Your task to perform on an android device: Open network settings Image 0: 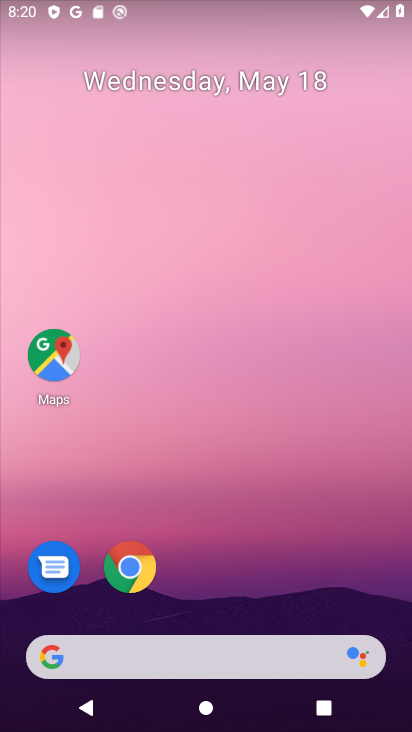
Step 0: drag from (244, 467) to (233, 27)
Your task to perform on an android device: Open network settings Image 1: 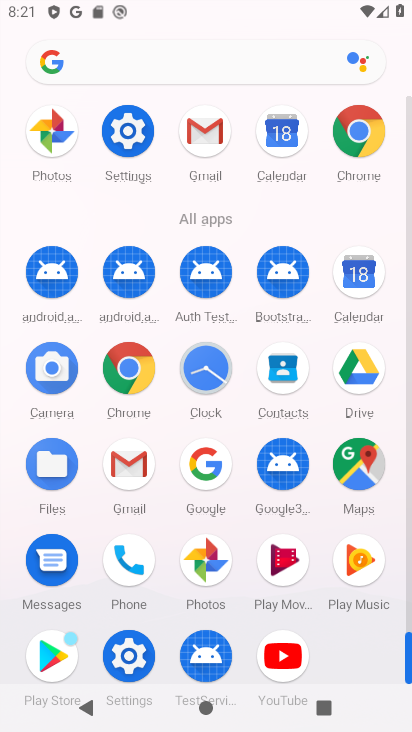
Step 1: drag from (0, 496) to (19, 330)
Your task to perform on an android device: Open network settings Image 2: 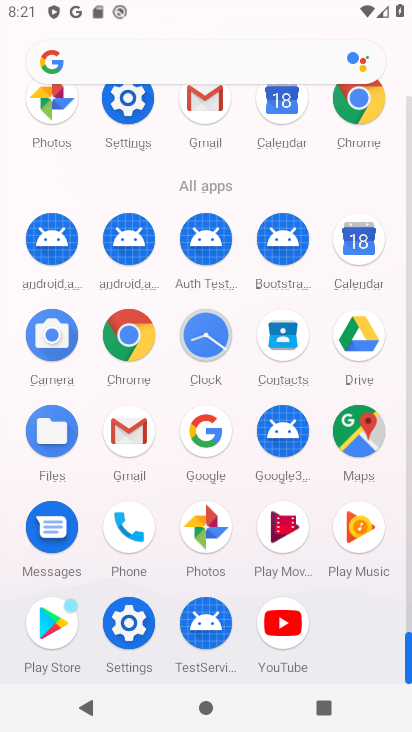
Step 2: click (126, 619)
Your task to perform on an android device: Open network settings Image 3: 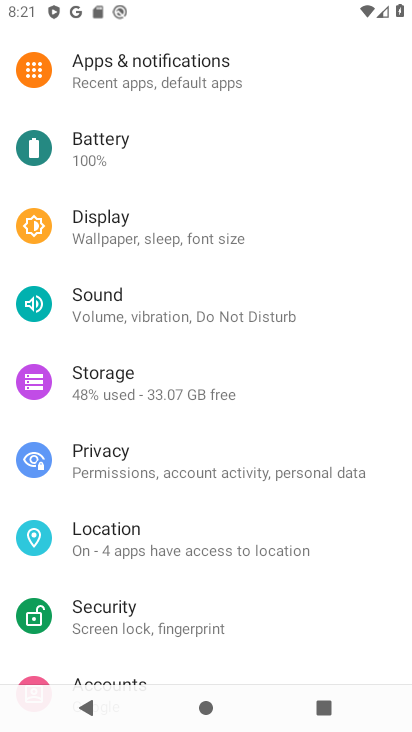
Step 3: drag from (215, 133) to (270, 570)
Your task to perform on an android device: Open network settings Image 4: 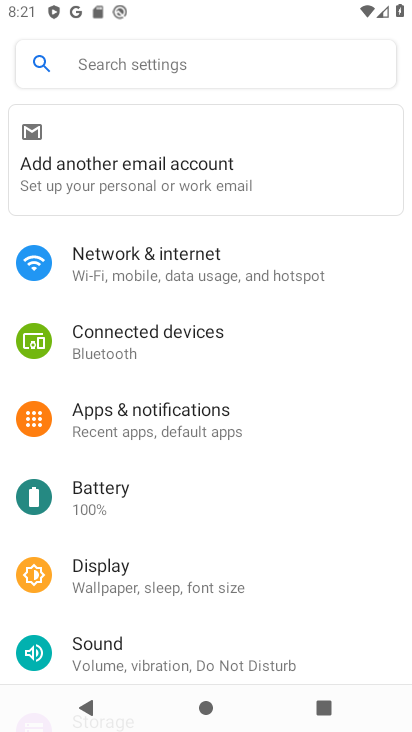
Step 4: click (205, 270)
Your task to perform on an android device: Open network settings Image 5: 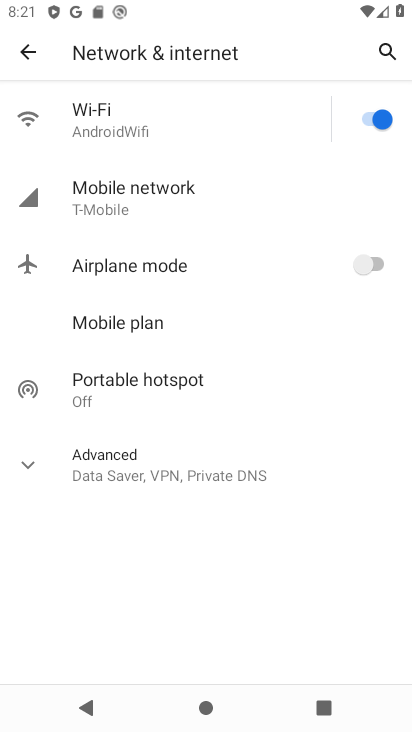
Step 5: click (27, 461)
Your task to perform on an android device: Open network settings Image 6: 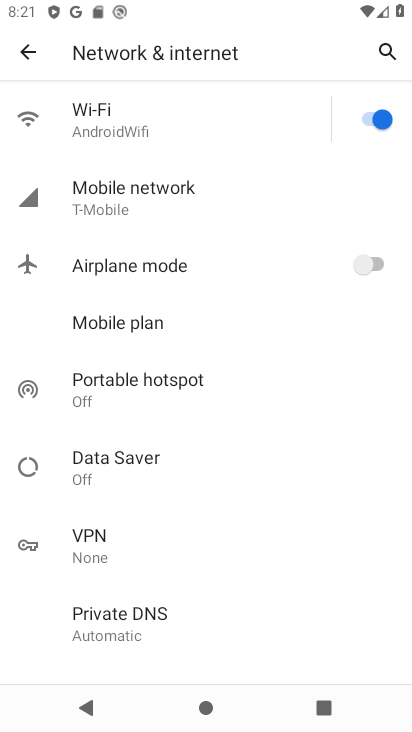
Step 6: task complete